Your task to perform on an android device: Check the weather Image 0: 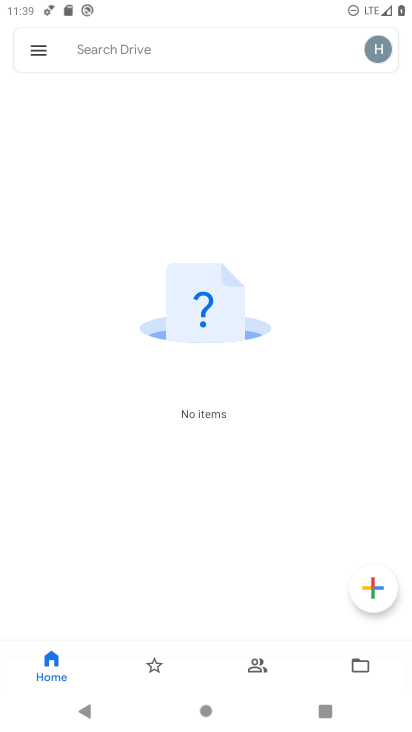
Step 0: press home button
Your task to perform on an android device: Check the weather Image 1: 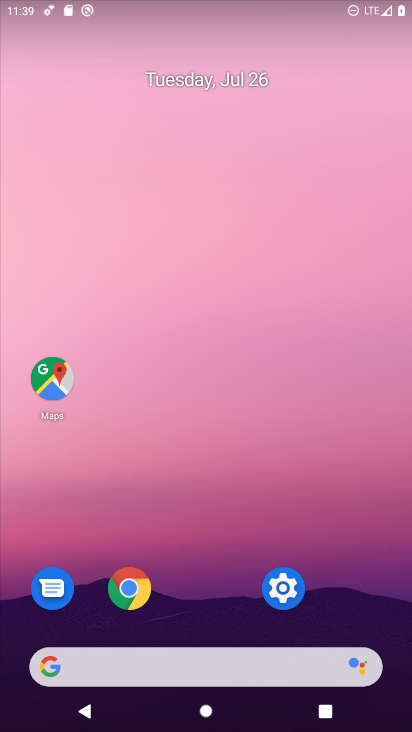
Step 1: click (198, 662)
Your task to perform on an android device: Check the weather Image 2: 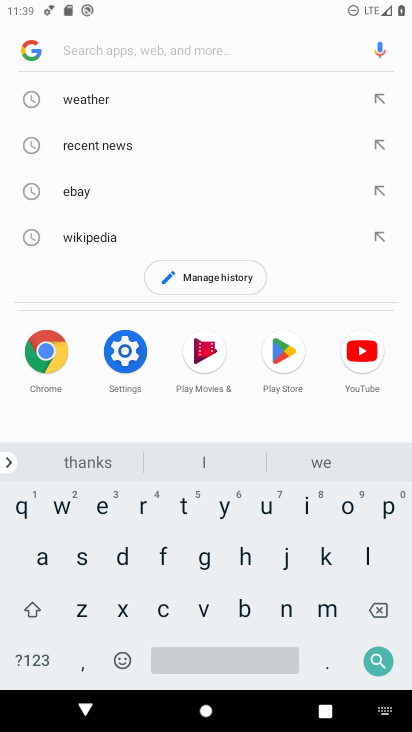
Step 2: click (105, 103)
Your task to perform on an android device: Check the weather Image 3: 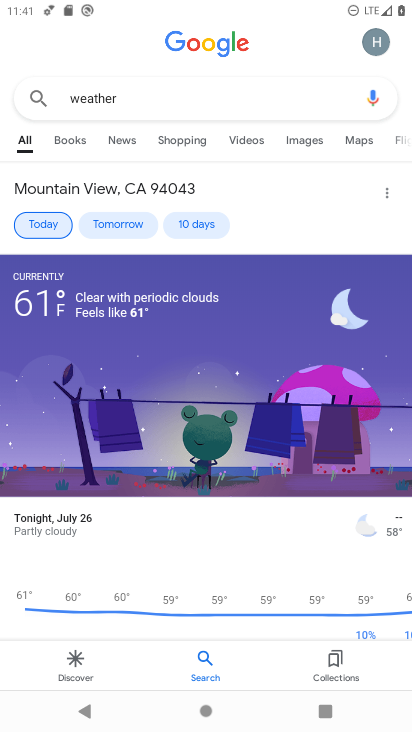
Step 3: task complete